Your task to perform on an android device: toggle notifications settings in the gmail app Image 0: 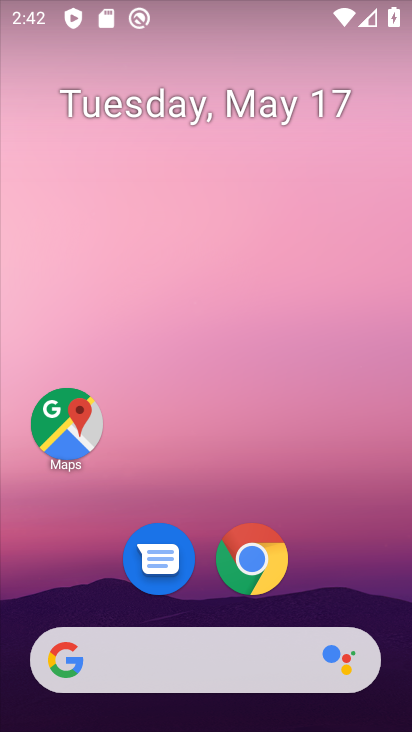
Step 0: drag from (369, 594) to (321, 285)
Your task to perform on an android device: toggle notifications settings in the gmail app Image 1: 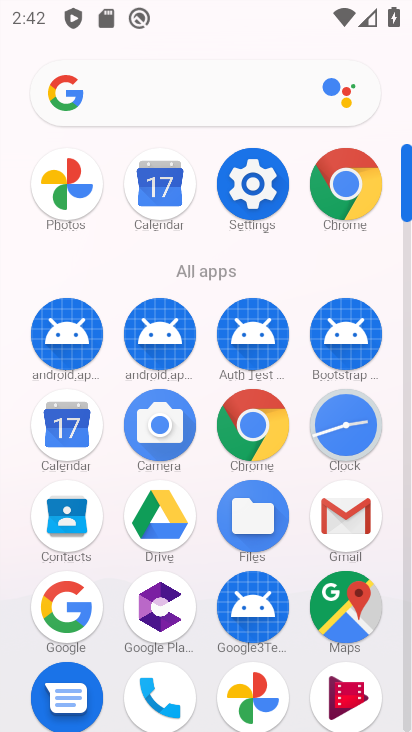
Step 1: click (335, 524)
Your task to perform on an android device: toggle notifications settings in the gmail app Image 2: 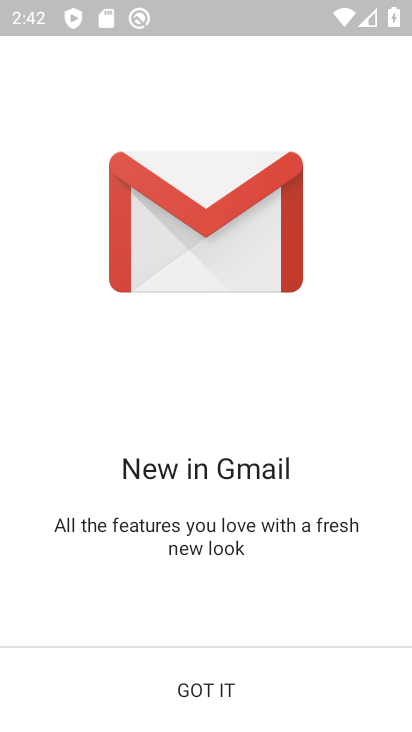
Step 2: click (241, 702)
Your task to perform on an android device: toggle notifications settings in the gmail app Image 3: 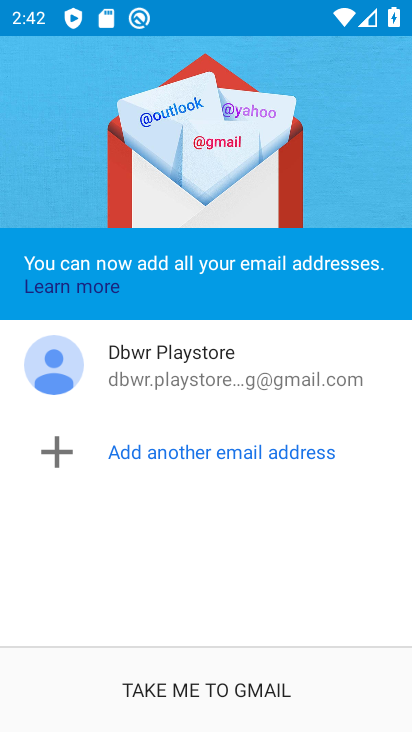
Step 3: click (241, 702)
Your task to perform on an android device: toggle notifications settings in the gmail app Image 4: 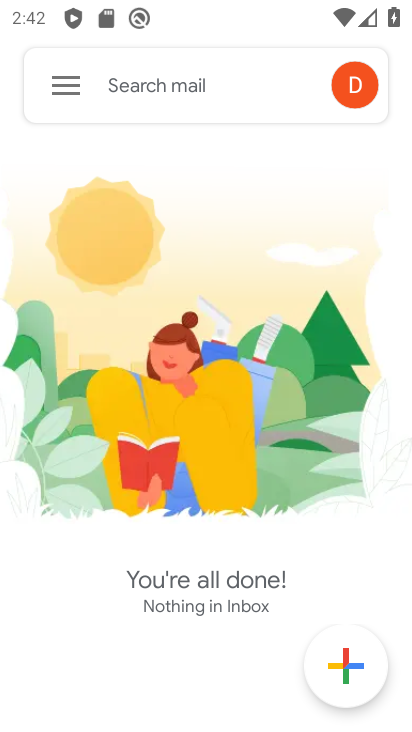
Step 4: click (58, 90)
Your task to perform on an android device: toggle notifications settings in the gmail app Image 5: 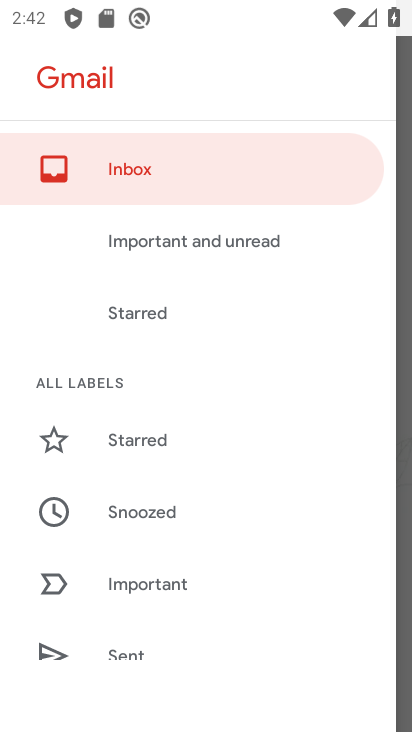
Step 5: drag from (176, 680) to (172, 296)
Your task to perform on an android device: toggle notifications settings in the gmail app Image 6: 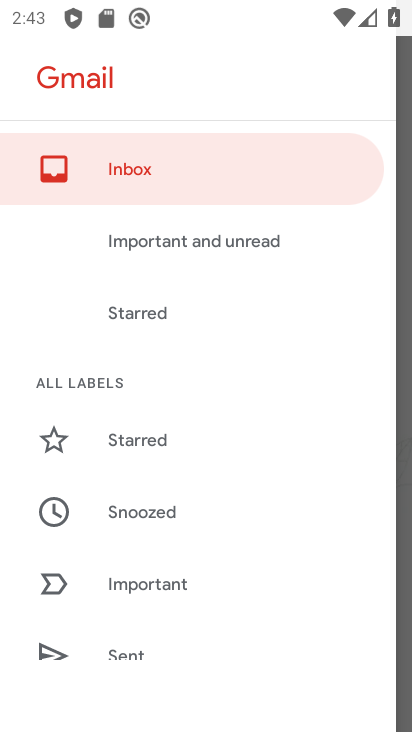
Step 6: drag from (189, 620) to (163, 244)
Your task to perform on an android device: toggle notifications settings in the gmail app Image 7: 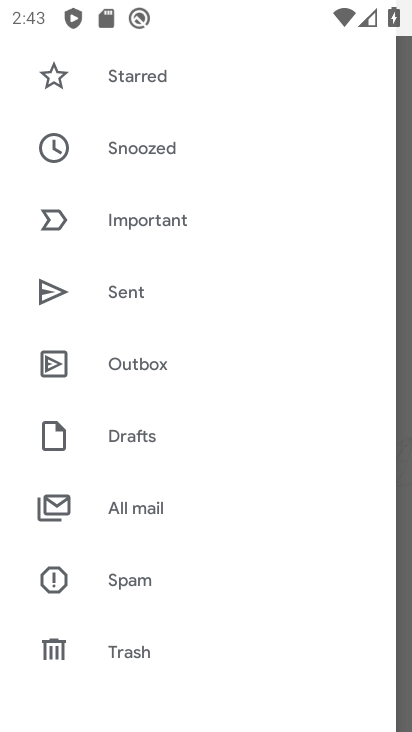
Step 7: drag from (140, 657) to (139, 426)
Your task to perform on an android device: toggle notifications settings in the gmail app Image 8: 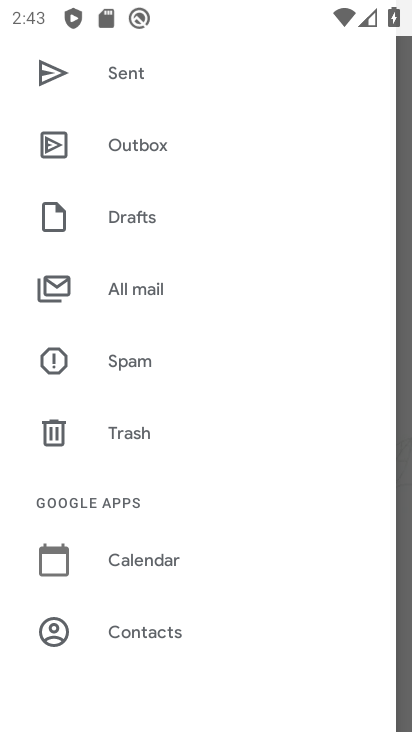
Step 8: drag from (180, 648) to (165, 411)
Your task to perform on an android device: toggle notifications settings in the gmail app Image 9: 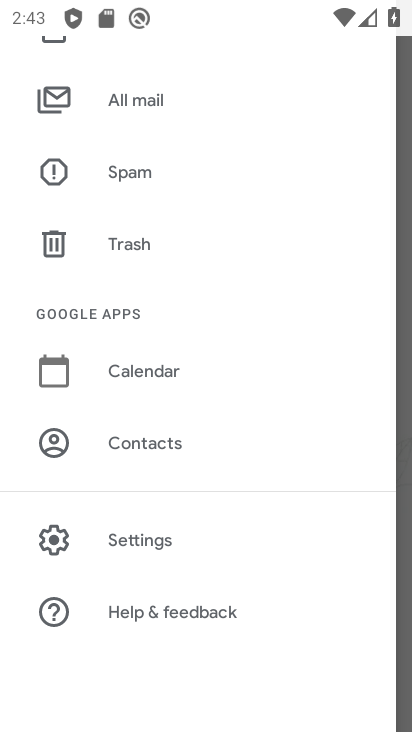
Step 9: click (183, 541)
Your task to perform on an android device: toggle notifications settings in the gmail app Image 10: 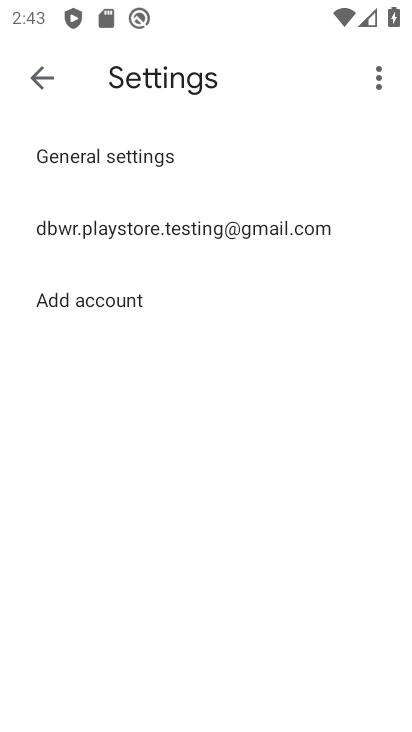
Step 10: click (201, 217)
Your task to perform on an android device: toggle notifications settings in the gmail app Image 11: 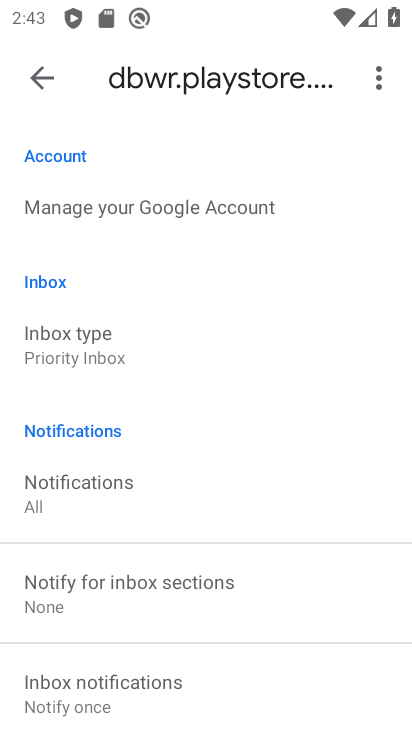
Step 11: drag from (218, 621) to (223, 314)
Your task to perform on an android device: toggle notifications settings in the gmail app Image 12: 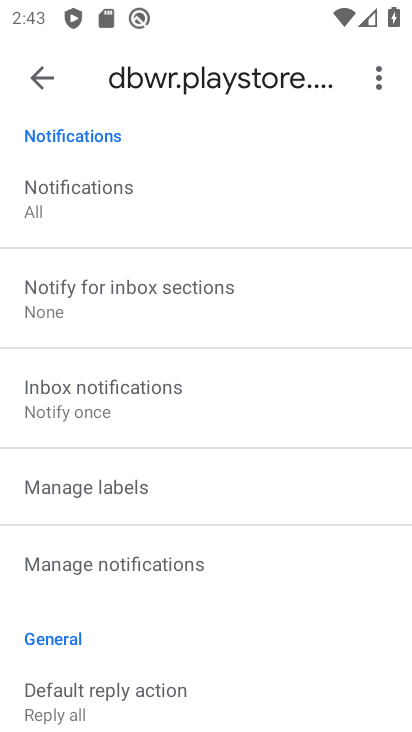
Step 12: click (245, 562)
Your task to perform on an android device: toggle notifications settings in the gmail app Image 13: 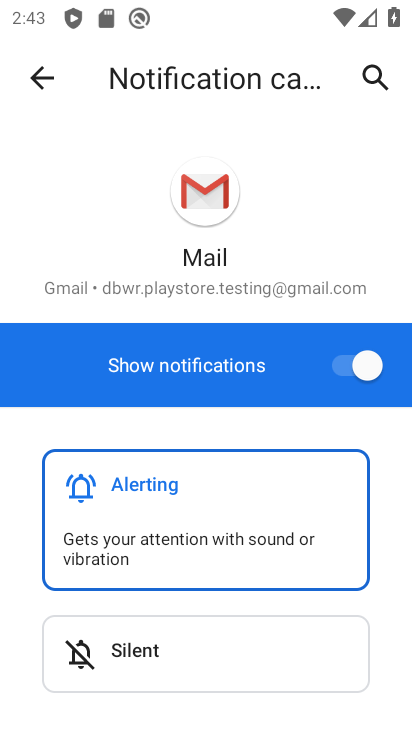
Step 13: drag from (280, 660) to (234, 505)
Your task to perform on an android device: toggle notifications settings in the gmail app Image 14: 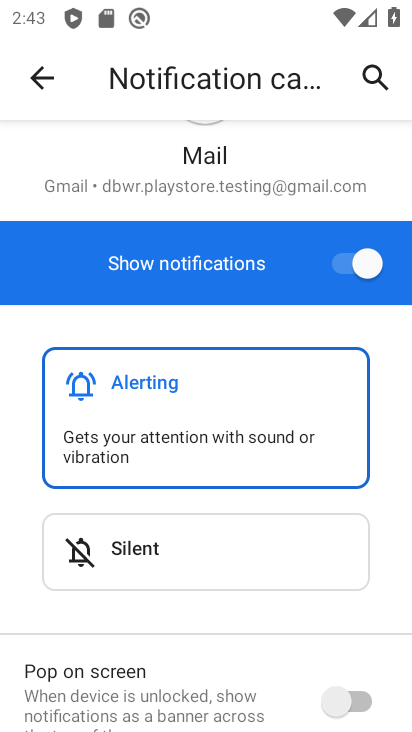
Step 14: click (234, 514)
Your task to perform on an android device: toggle notifications settings in the gmail app Image 15: 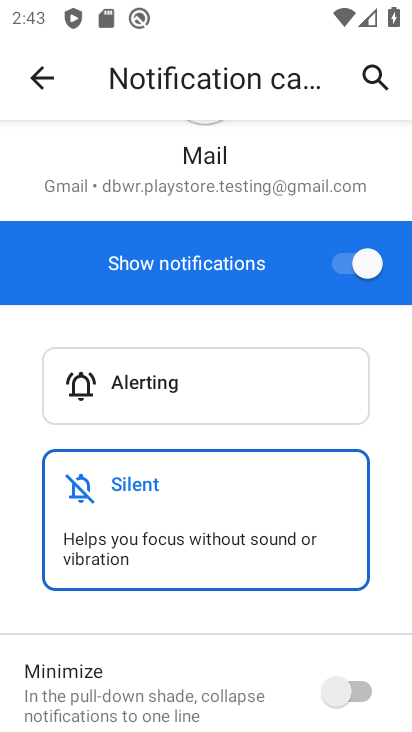
Step 15: click (362, 701)
Your task to perform on an android device: toggle notifications settings in the gmail app Image 16: 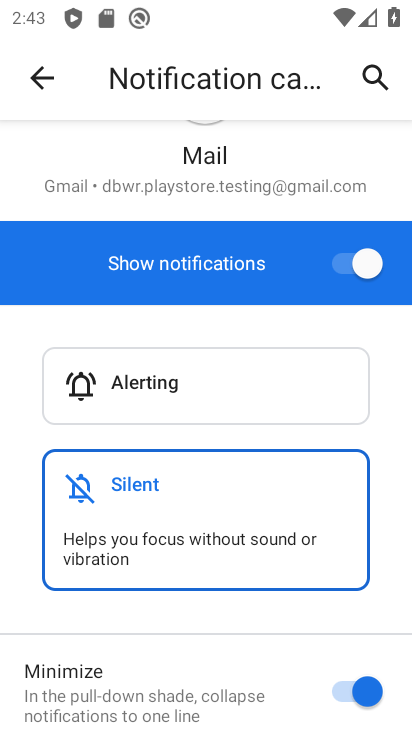
Step 16: task complete